Your task to perform on an android device: toggle data saver in the chrome app Image 0: 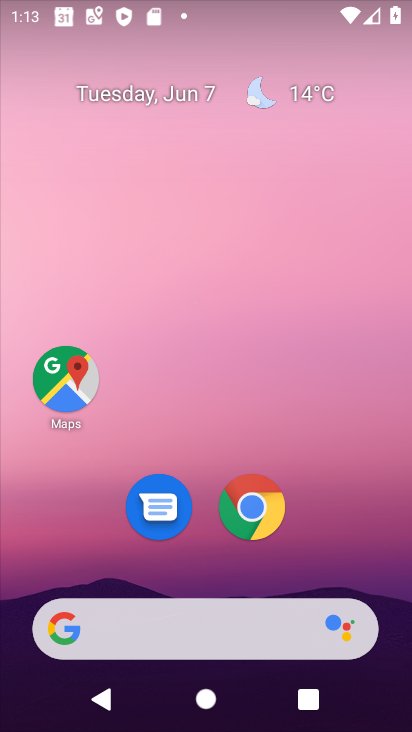
Step 0: click (252, 503)
Your task to perform on an android device: toggle data saver in the chrome app Image 1: 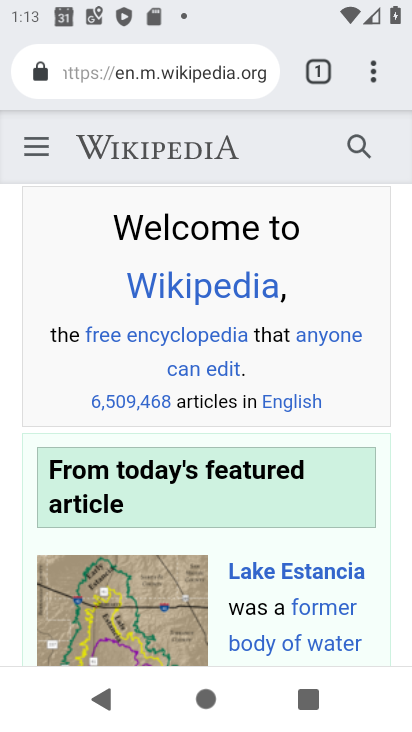
Step 1: click (370, 77)
Your task to perform on an android device: toggle data saver in the chrome app Image 2: 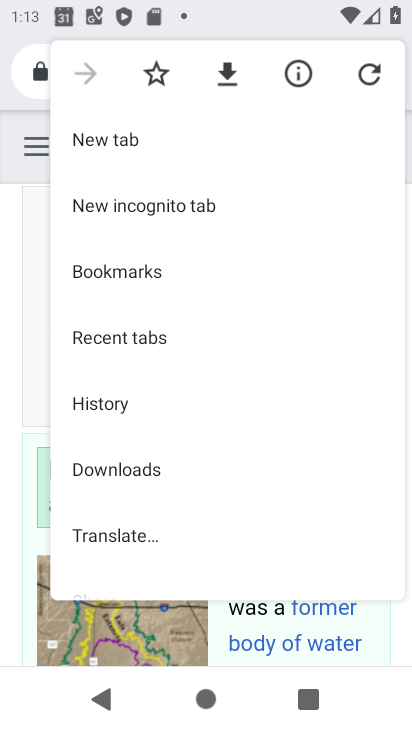
Step 2: drag from (200, 463) to (241, 152)
Your task to perform on an android device: toggle data saver in the chrome app Image 3: 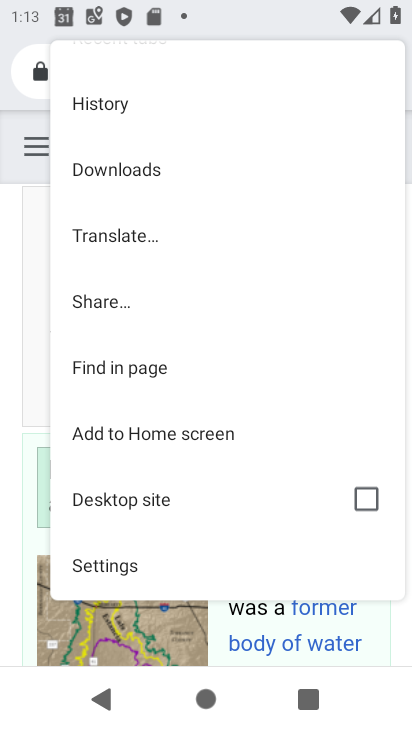
Step 3: click (93, 570)
Your task to perform on an android device: toggle data saver in the chrome app Image 4: 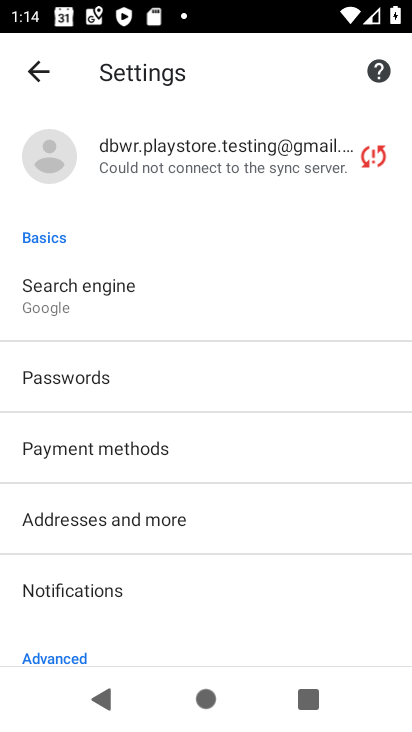
Step 4: drag from (165, 616) to (223, 251)
Your task to perform on an android device: toggle data saver in the chrome app Image 5: 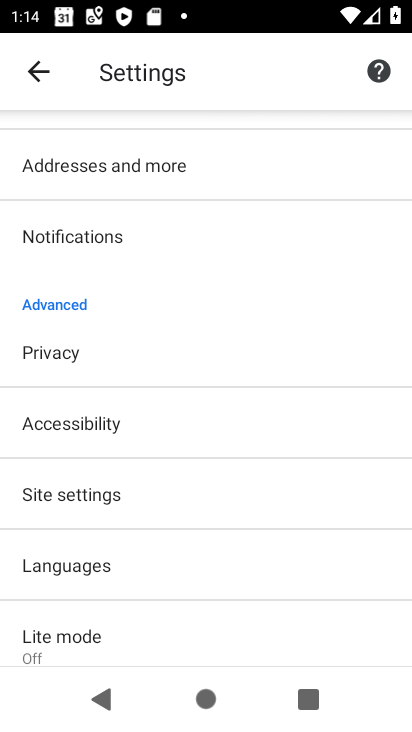
Step 5: click (73, 611)
Your task to perform on an android device: toggle data saver in the chrome app Image 6: 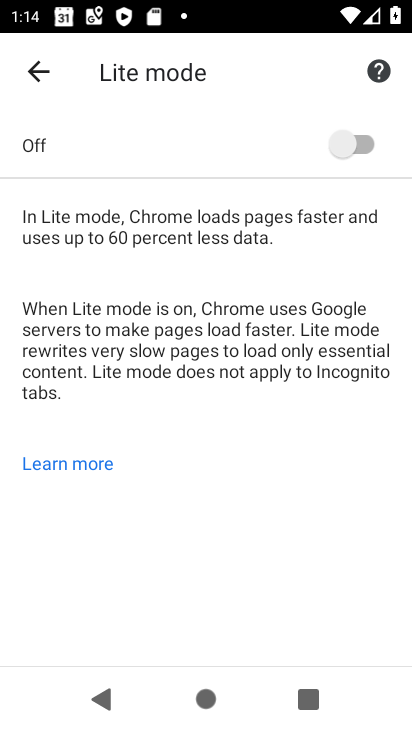
Step 6: click (364, 148)
Your task to perform on an android device: toggle data saver in the chrome app Image 7: 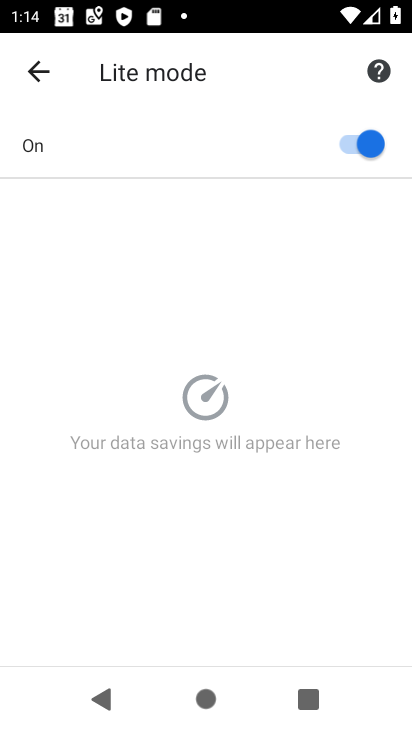
Step 7: task complete